Your task to perform on an android device: Open Google Image 0: 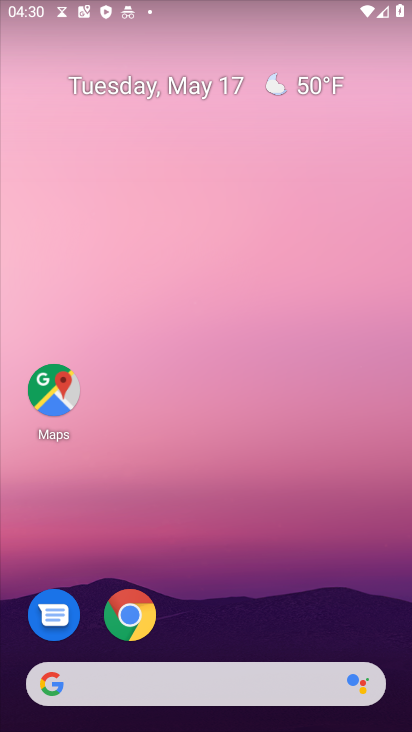
Step 0: drag from (302, 713) to (198, 134)
Your task to perform on an android device: Open Google Image 1: 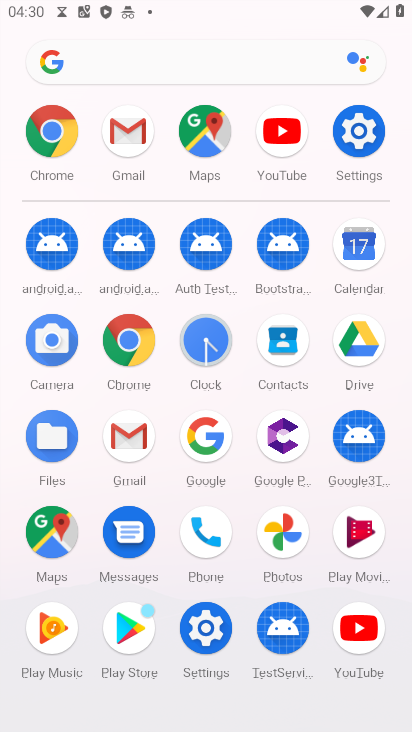
Step 1: click (206, 440)
Your task to perform on an android device: Open Google Image 2: 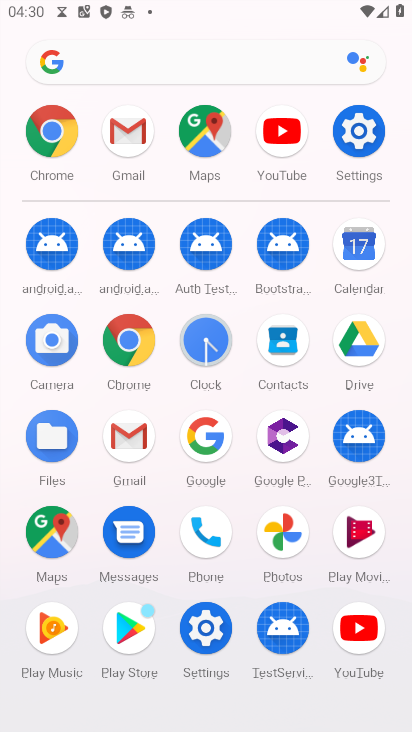
Step 2: click (206, 440)
Your task to perform on an android device: Open Google Image 3: 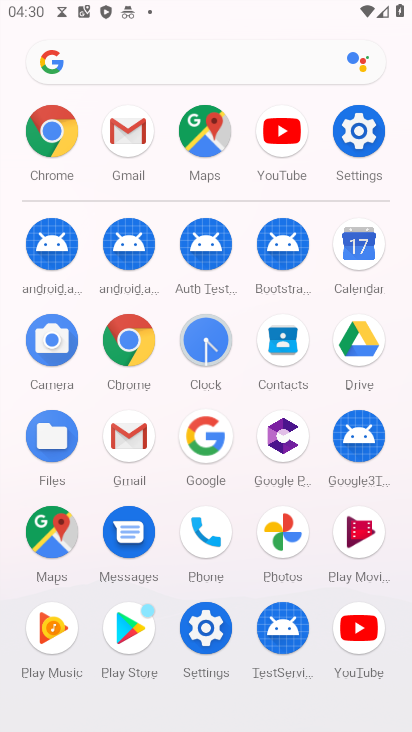
Step 3: click (206, 440)
Your task to perform on an android device: Open Google Image 4: 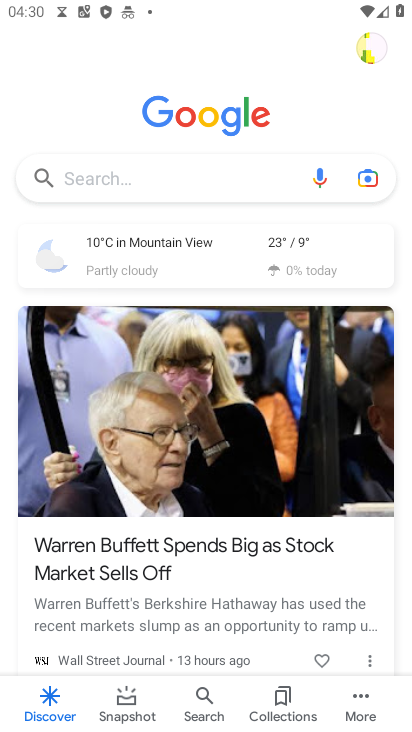
Step 4: task complete